Your task to perform on an android device: Go to settings Image 0: 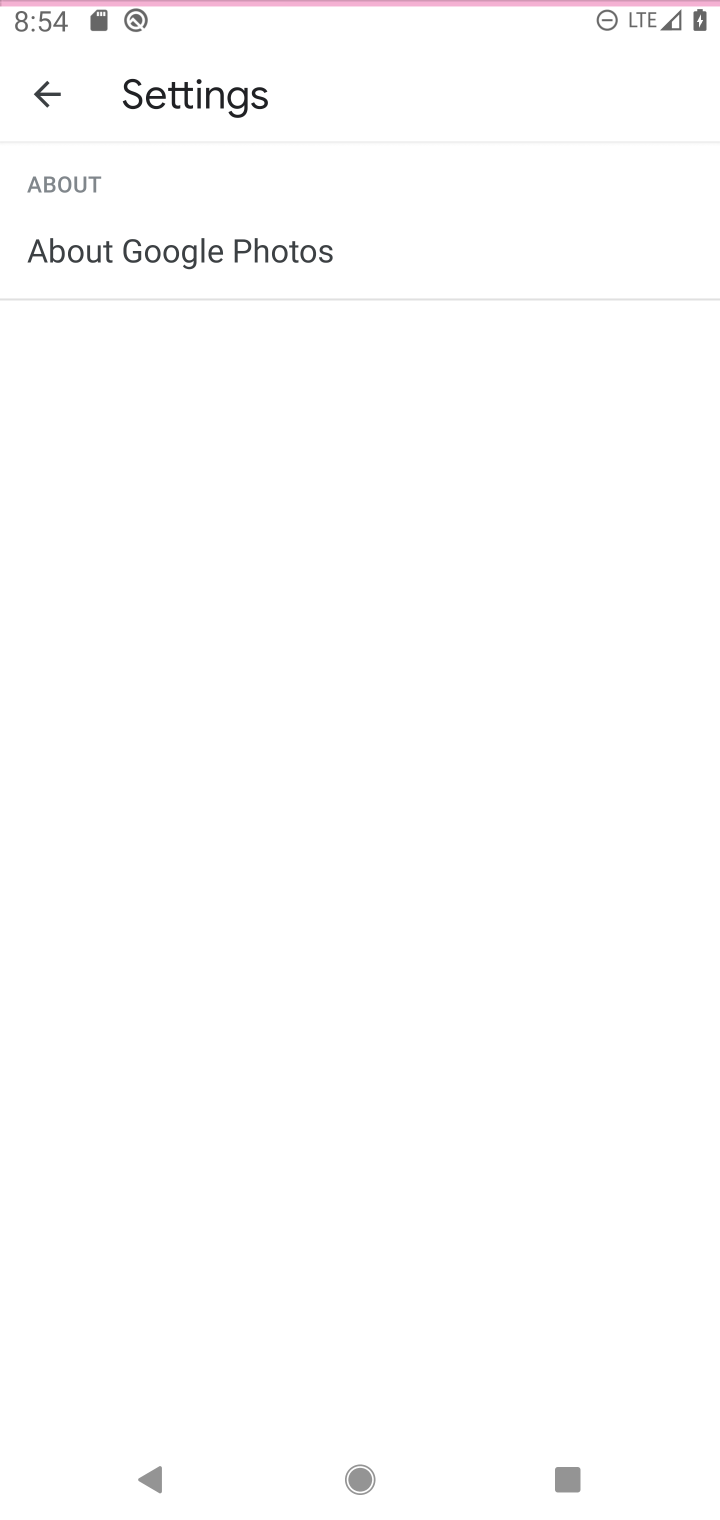
Step 0: press home button
Your task to perform on an android device: Go to settings Image 1: 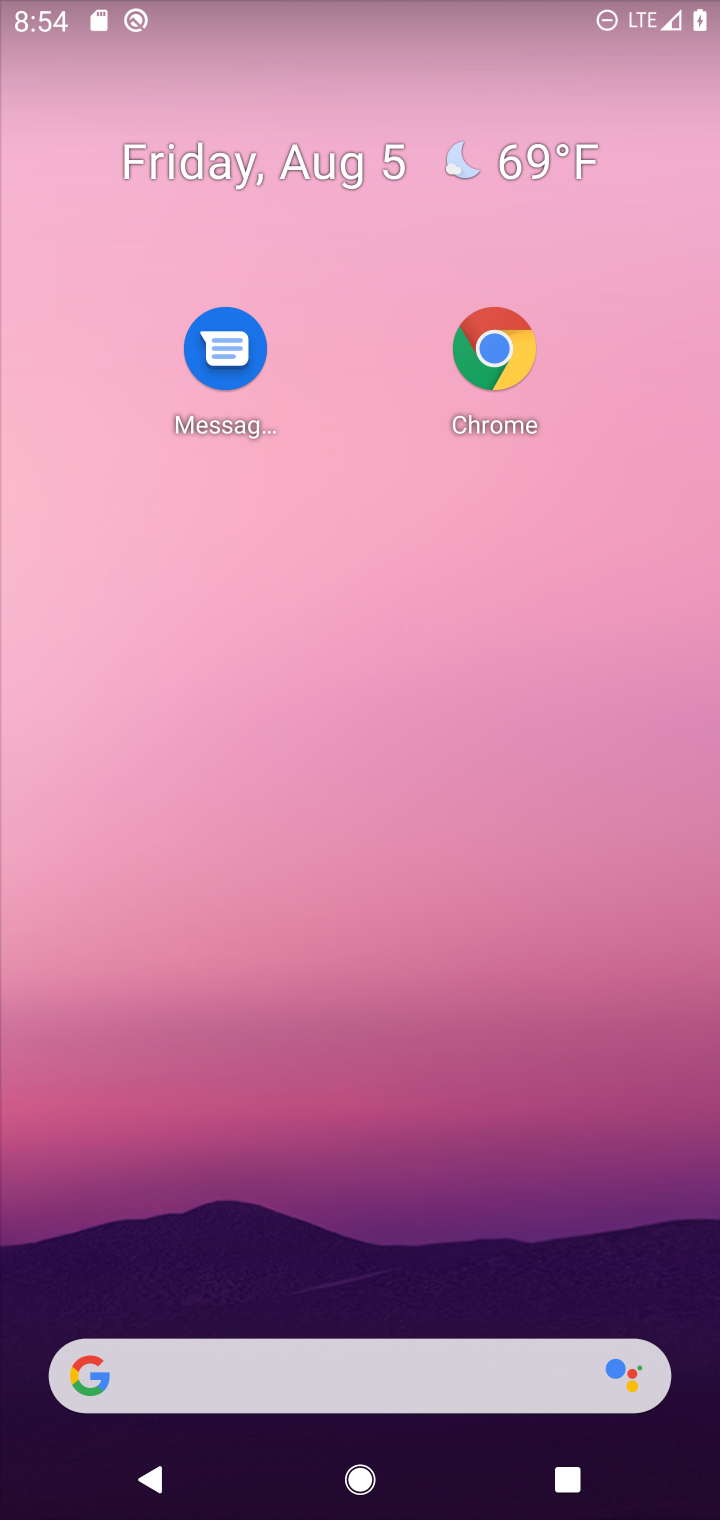
Step 1: drag from (431, 1376) to (436, 491)
Your task to perform on an android device: Go to settings Image 2: 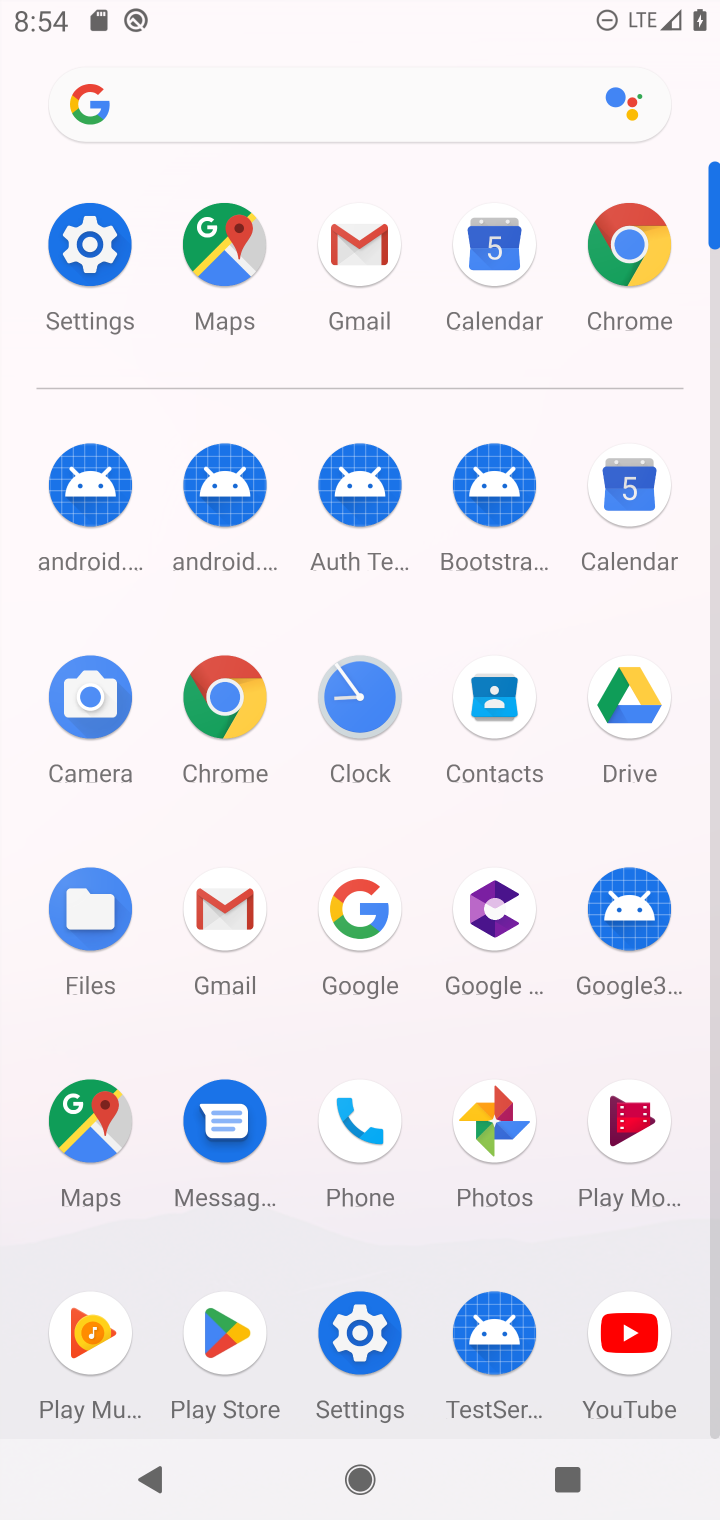
Step 2: click (106, 260)
Your task to perform on an android device: Go to settings Image 3: 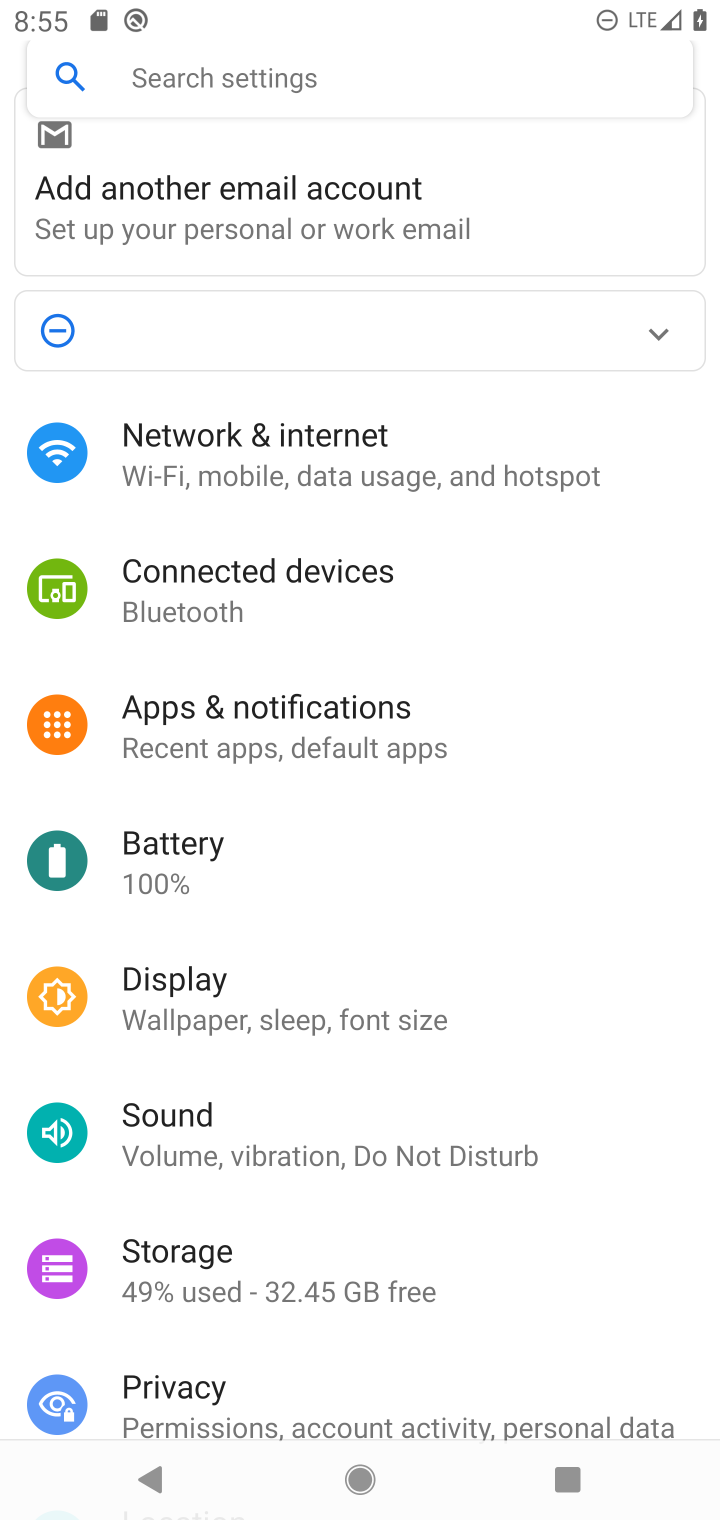
Step 3: task complete